Your task to perform on an android device: see creations saved in the google photos Image 0: 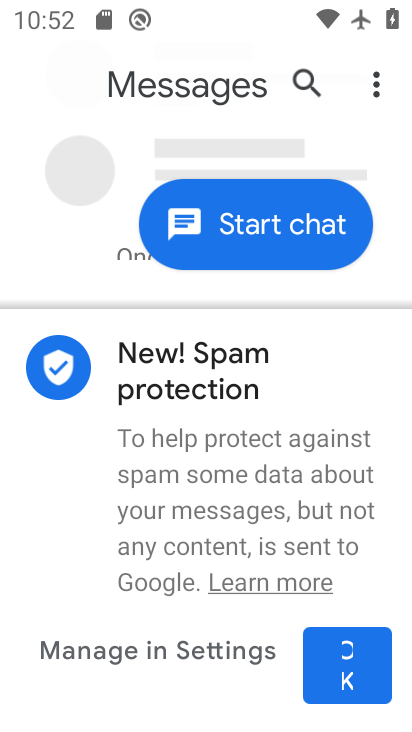
Step 0: press home button
Your task to perform on an android device: see creations saved in the google photos Image 1: 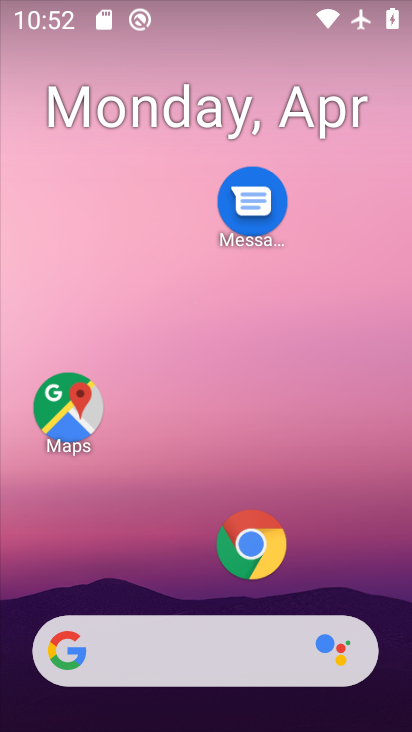
Step 1: drag from (198, 579) to (248, 111)
Your task to perform on an android device: see creations saved in the google photos Image 2: 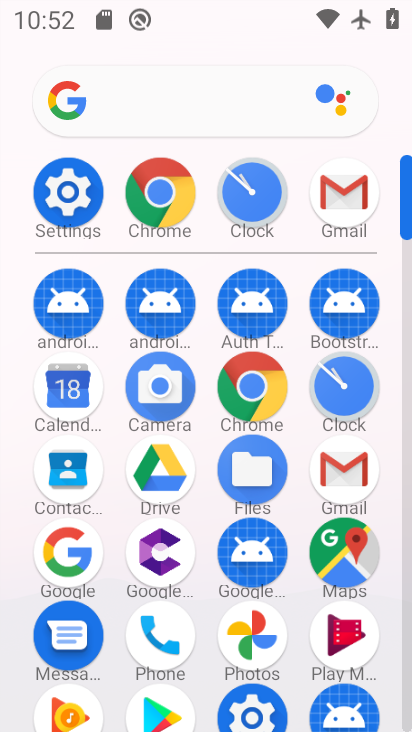
Step 2: click (254, 625)
Your task to perform on an android device: see creations saved in the google photos Image 3: 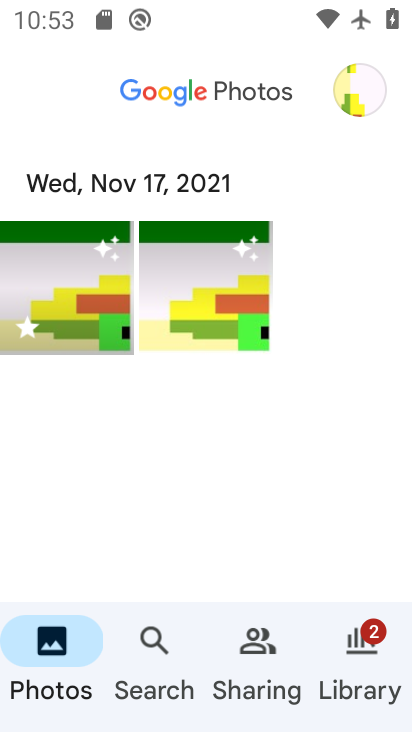
Step 3: click (158, 638)
Your task to perform on an android device: see creations saved in the google photos Image 4: 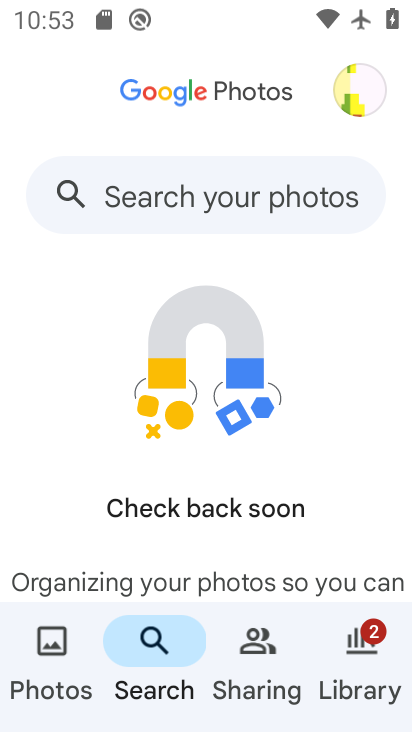
Step 4: click (151, 640)
Your task to perform on an android device: see creations saved in the google photos Image 5: 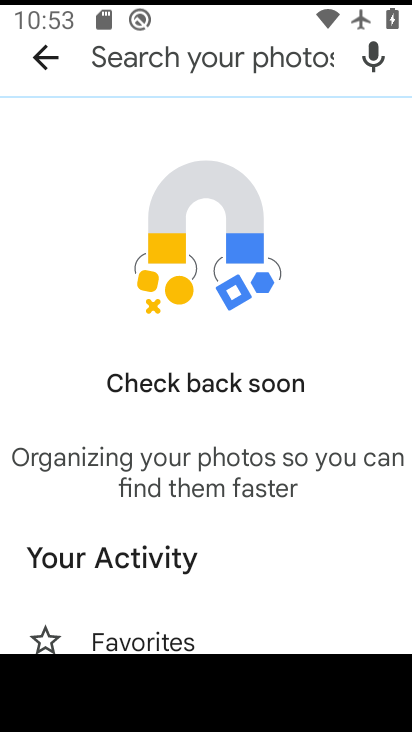
Step 5: drag from (190, 592) to (257, 137)
Your task to perform on an android device: see creations saved in the google photos Image 6: 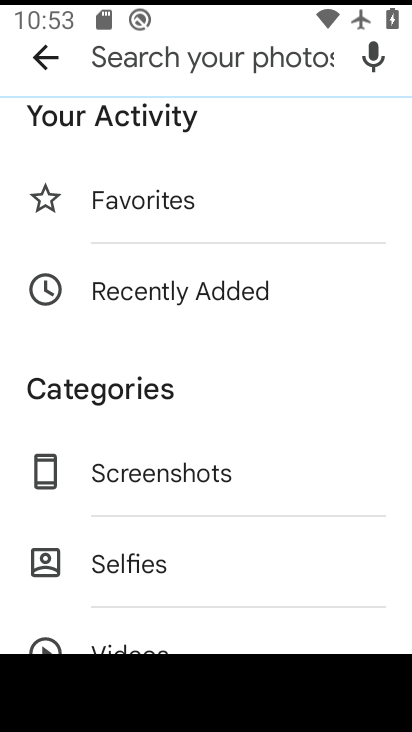
Step 6: drag from (185, 573) to (231, 200)
Your task to perform on an android device: see creations saved in the google photos Image 7: 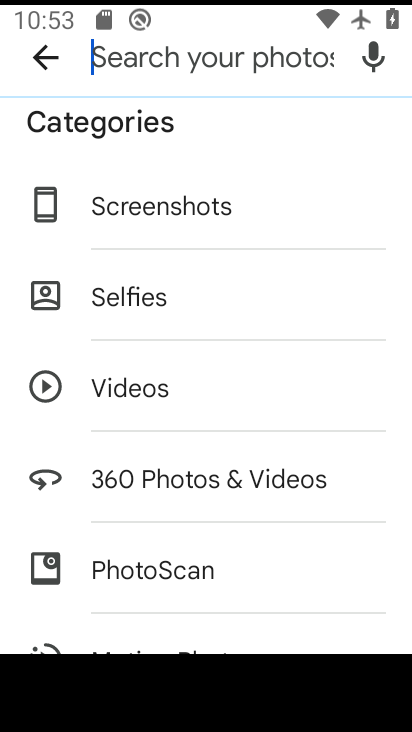
Step 7: drag from (219, 593) to (258, 209)
Your task to perform on an android device: see creations saved in the google photos Image 8: 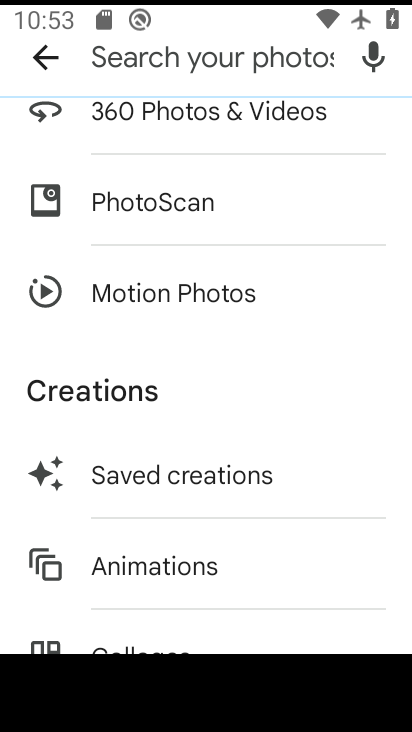
Step 8: drag from (185, 602) to (212, 252)
Your task to perform on an android device: see creations saved in the google photos Image 9: 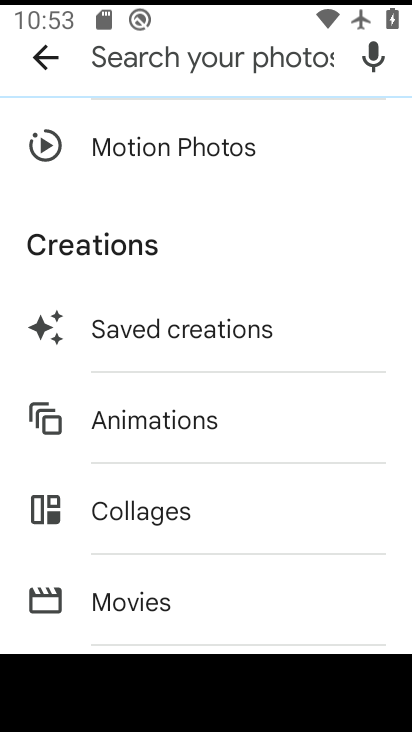
Step 9: click (180, 337)
Your task to perform on an android device: see creations saved in the google photos Image 10: 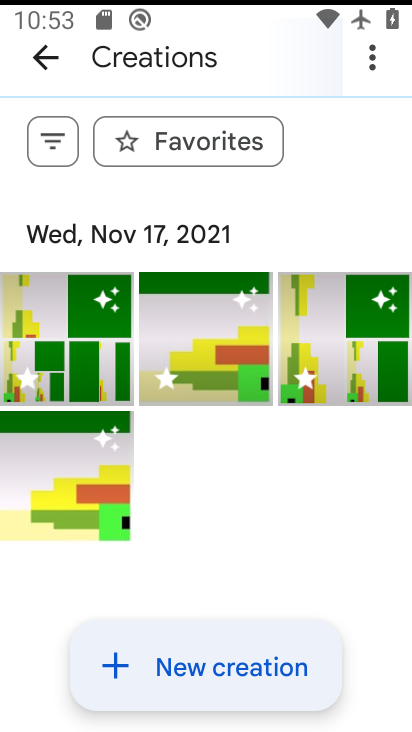
Step 10: task complete